Your task to perform on an android device: Open calendar and show me the fourth week of next month Image 0: 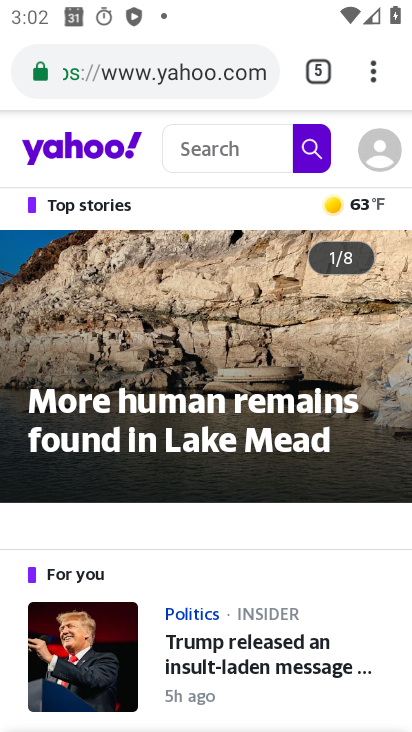
Step 0: press back button
Your task to perform on an android device: Open calendar and show me the fourth week of next month Image 1: 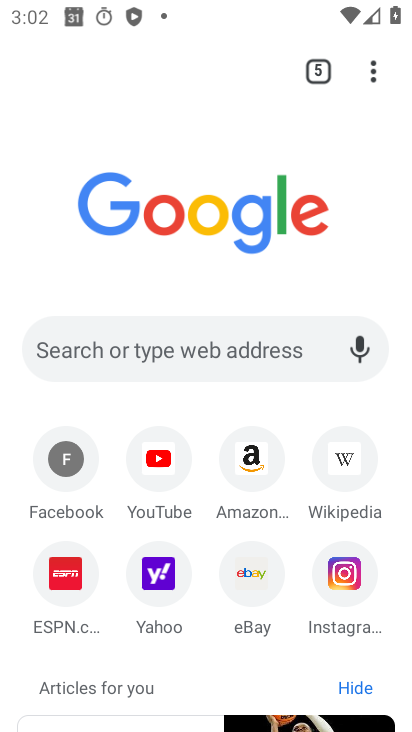
Step 1: press home button
Your task to perform on an android device: Open calendar and show me the fourth week of next month Image 2: 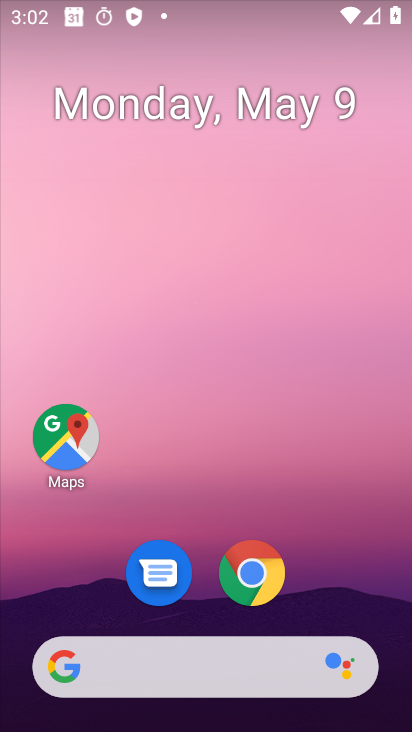
Step 2: drag from (337, 625) to (178, 2)
Your task to perform on an android device: Open calendar and show me the fourth week of next month Image 3: 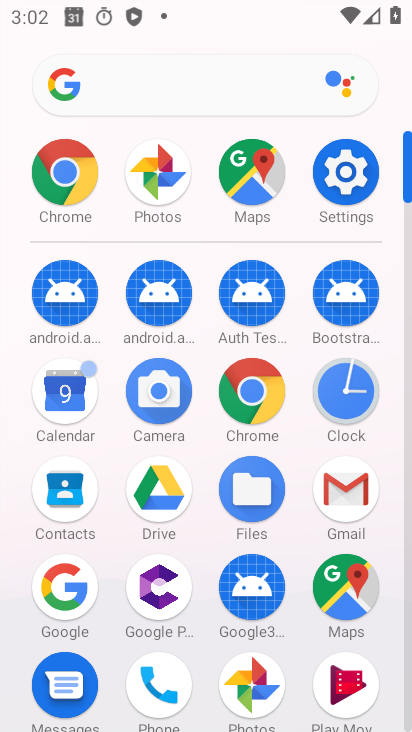
Step 3: click (64, 396)
Your task to perform on an android device: Open calendar and show me the fourth week of next month Image 4: 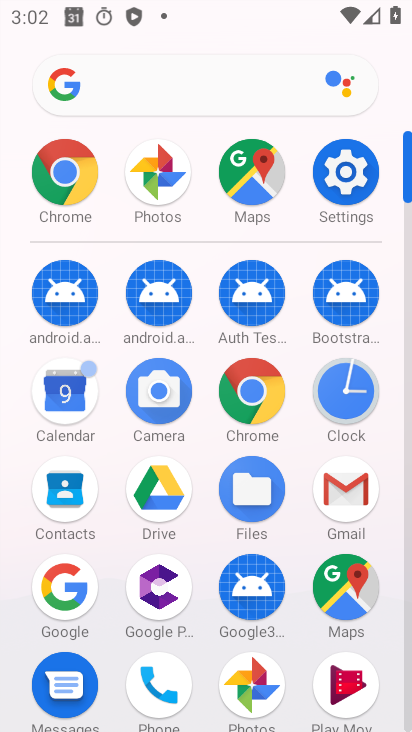
Step 4: click (68, 389)
Your task to perform on an android device: Open calendar and show me the fourth week of next month Image 5: 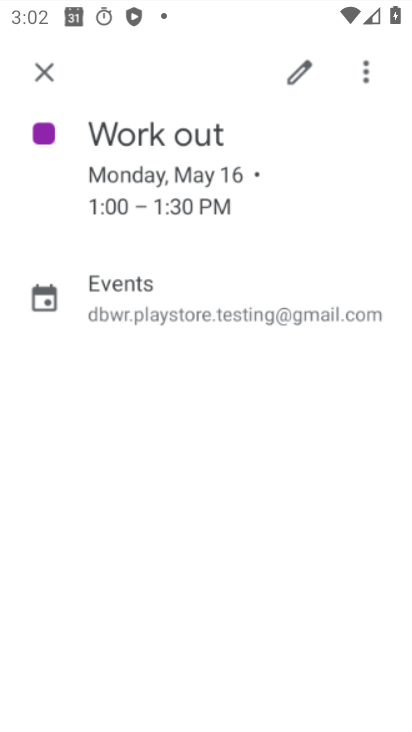
Step 5: click (69, 388)
Your task to perform on an android device: Open calendar and show me the fourth week of next month Image 6: 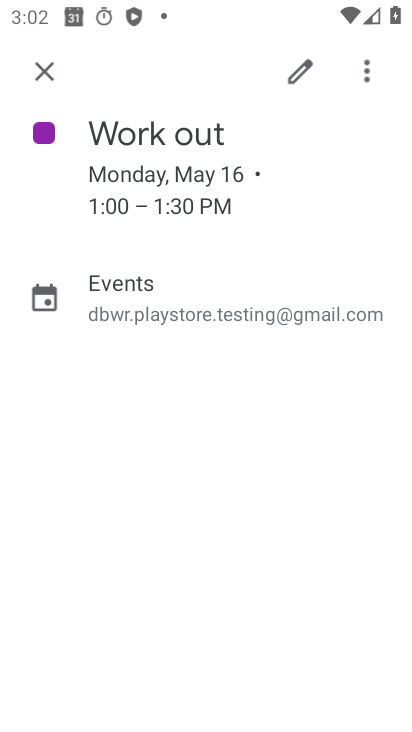
Step 6: click (44, 81)
Your task to perform on an android device: Open calendar and show me the fourth week of next month Image 7: 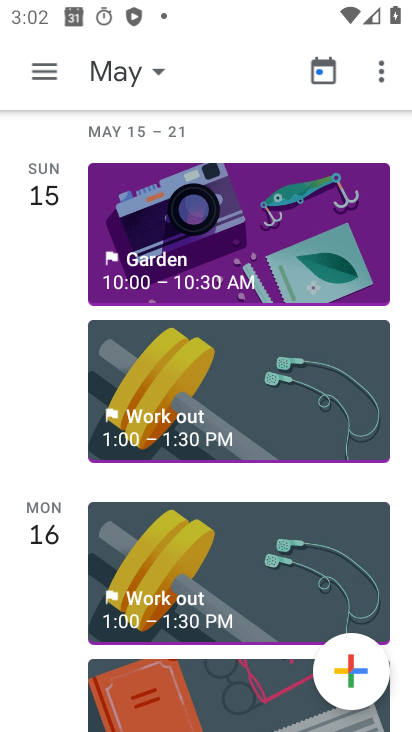
Step 7: click (152, 73)
Your task to perform on an android device: Open calendar and show me the fourth week of next month Image 8: 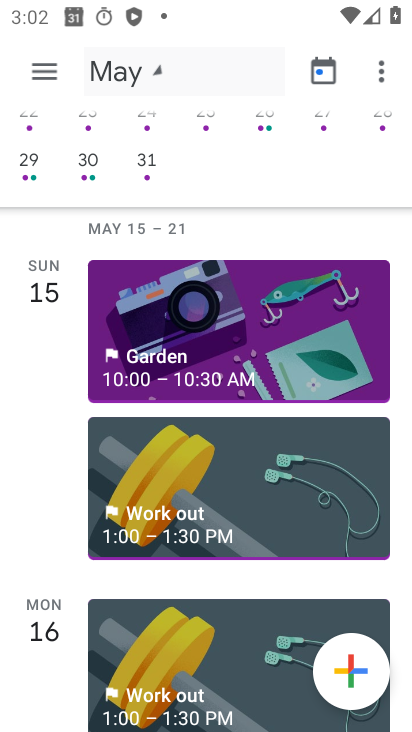
Step 8: click (154, 71)
Your task to perform on an android device: Open calendar and show me the fourth week of next month Image 9: 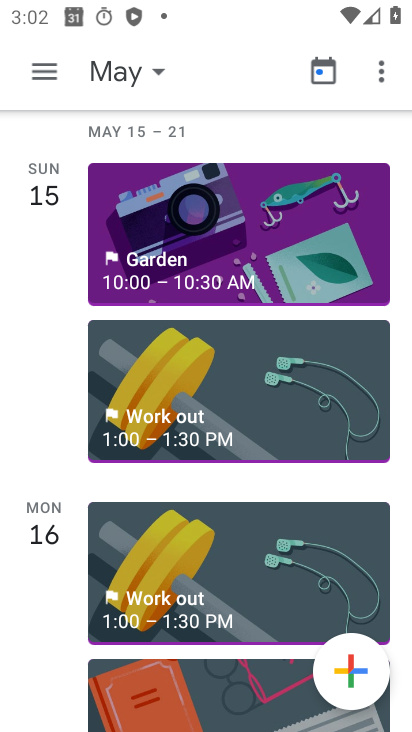
Step 9: click (154, 76)
Your task to perform on an android device: Open calendar and show me the fourth week of next month Image 10: 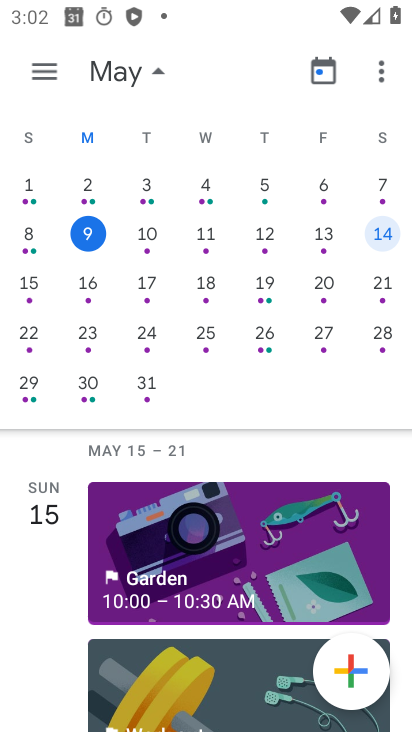
Step 10: click (143, 282)
Your task to perform on an android device: Open calendar and show me the fourth week of next month Image 11: 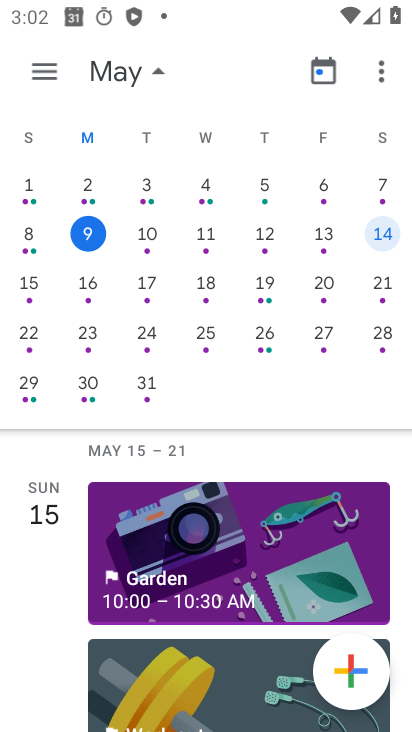
Step 11: click (145, 285)
Your task to perform on an android device: Open calendar and show me the fourth week of next month Image 12: 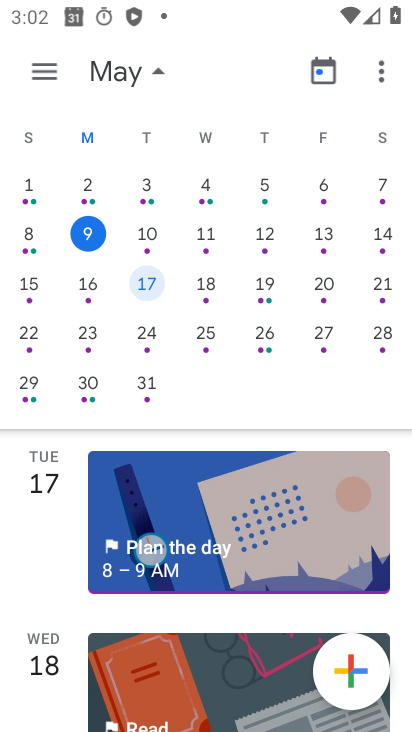
Step 12: click (145, 285)
Your task to perform on an android device: Open calendar and show me the fourth week of next month Image 13: 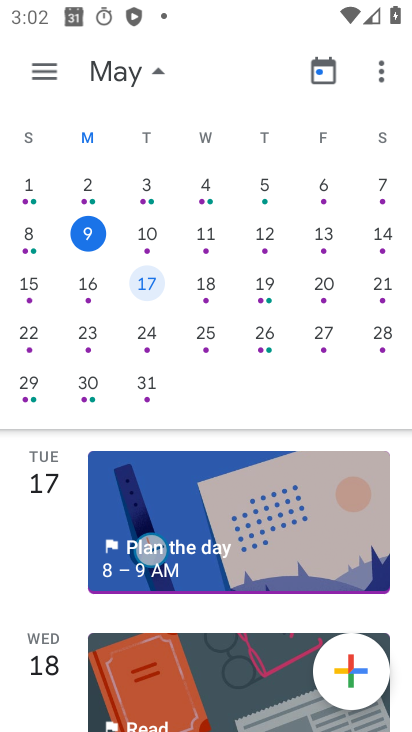
Step 13: click (145, 285)
Your task to perform on an android device: Open calendar and show me the fourth week of next month Image 14: 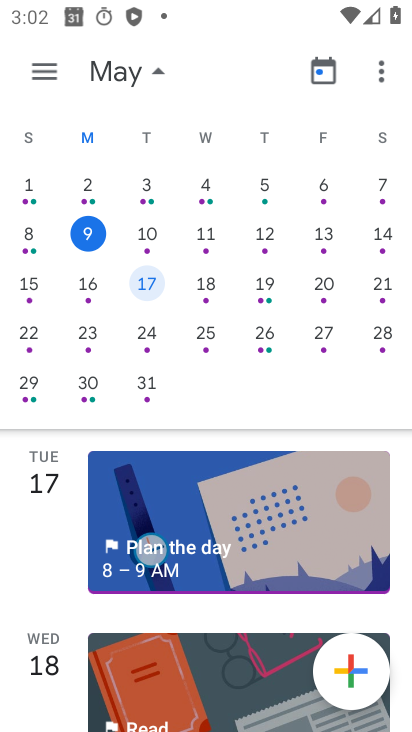
Step 14: task complete